Your task to perform on an android device: View the shopping cart on newegg. Image 0: 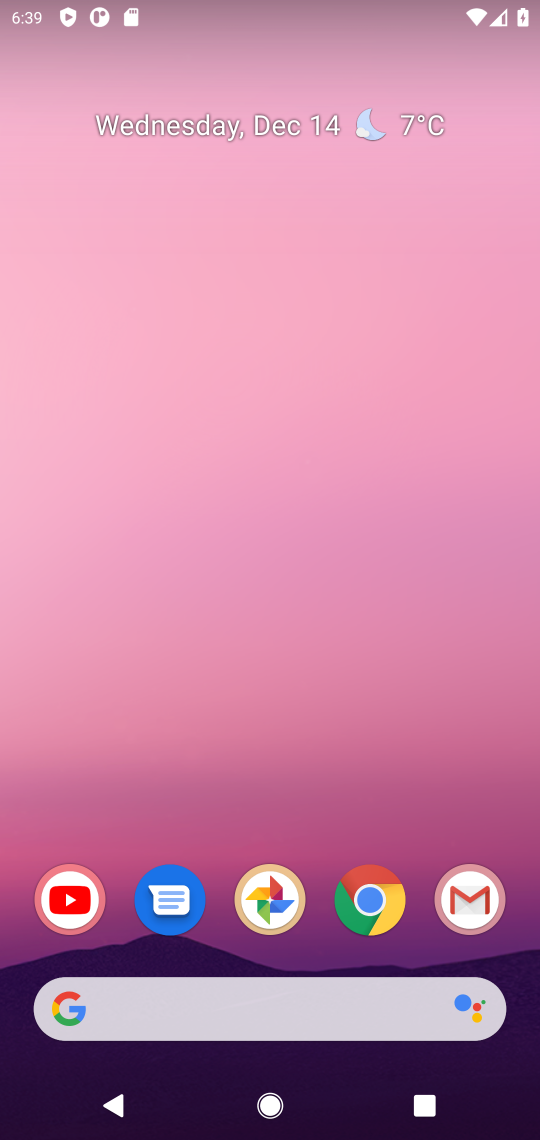
Step 0: drag from (251, 936) to (224, 291)
Your task to perform on an android device: View the shopping cart on newegg. Image 1: 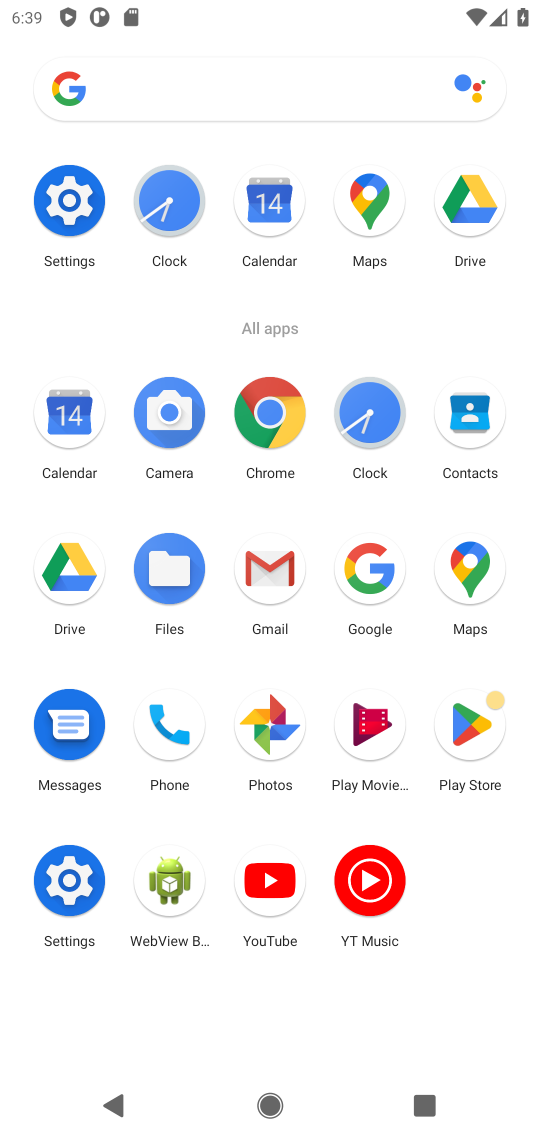
Step 1: click (380, 579)
Your task to perform on an android device: View the shopping cart on newegg. Image 2: 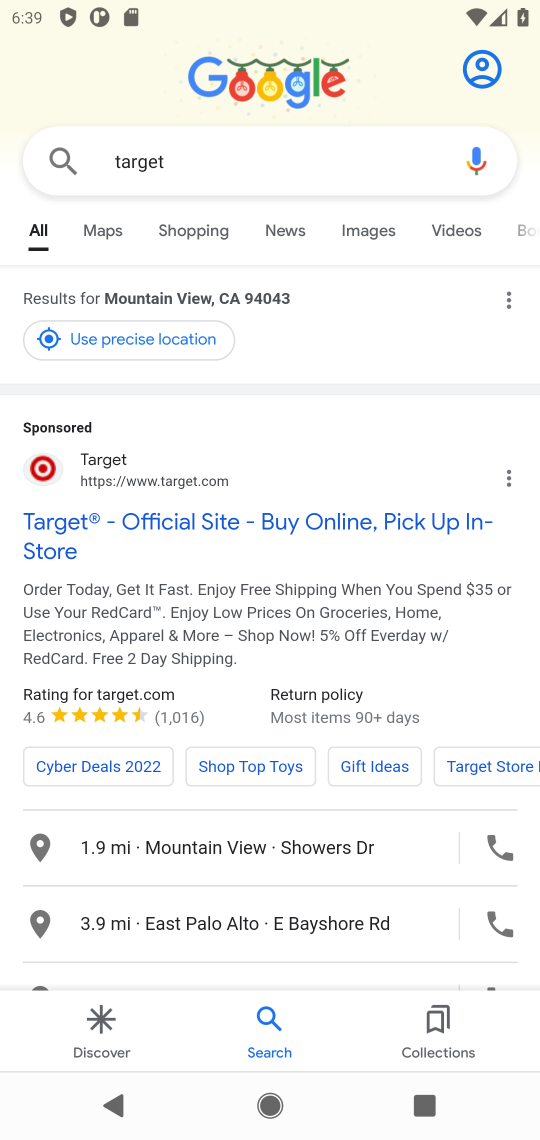
Step 2: click (388, 177)
Your task to perform on an android device: View the shopping cart on newegg. Image 3: 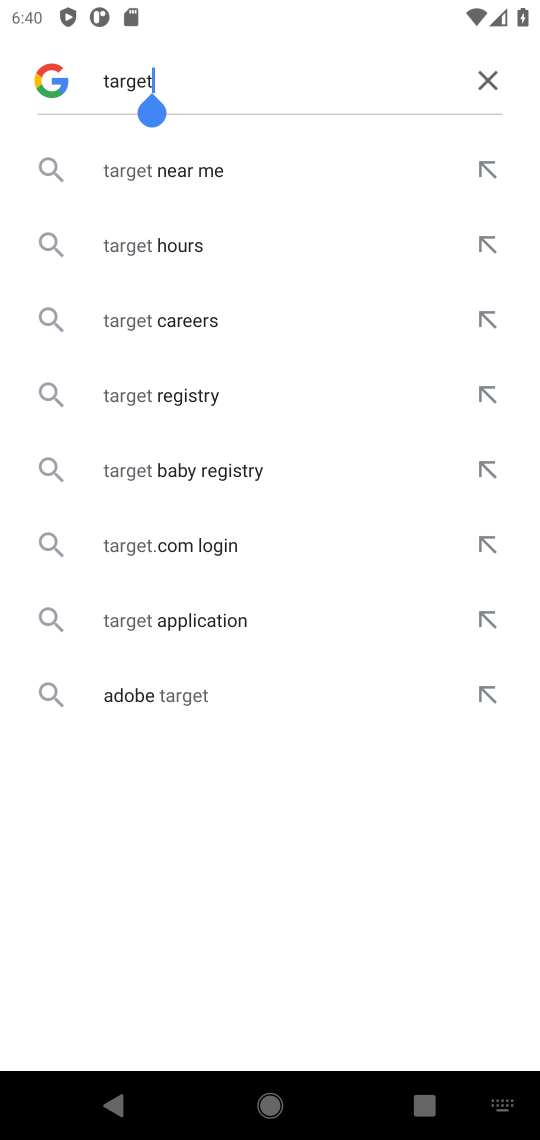
Step 3: click (482, 78)
Your task to perform on an android device: View the shopping cart on newegg. Image 4: 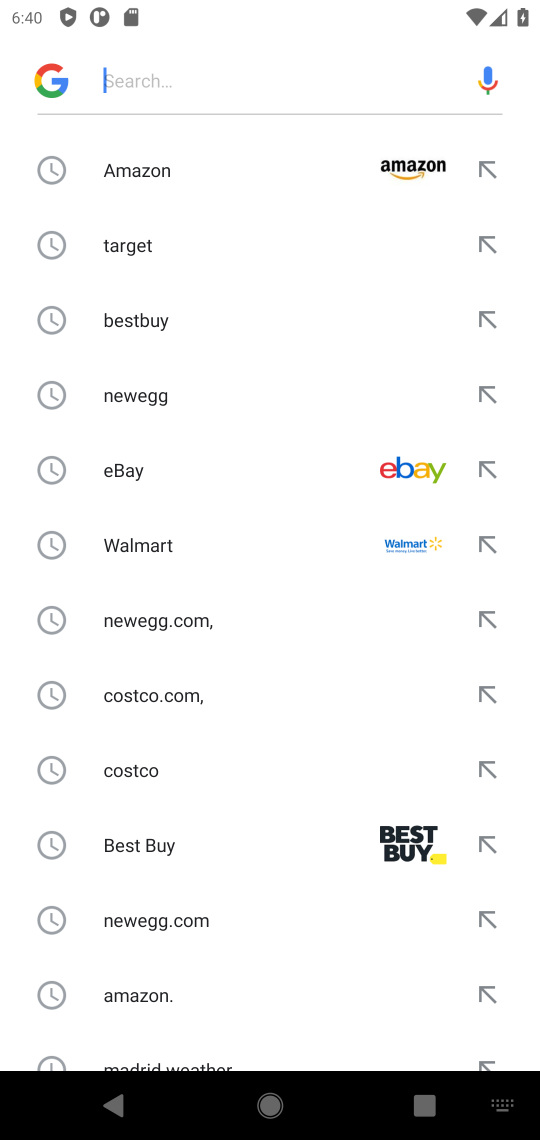
Step 4: click (309, 92)
Your task to perform on an android device: View the shopping cart on newegg. Image 5: 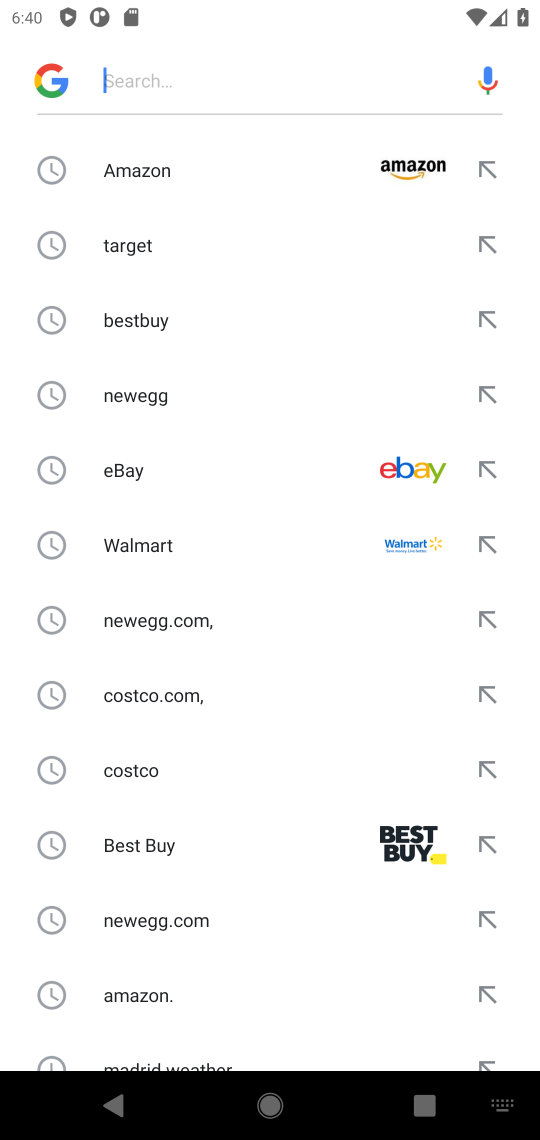
Step 5: type "newegg"
Your task to perform on an android device: View the shopping cart on newegg. Image 6: 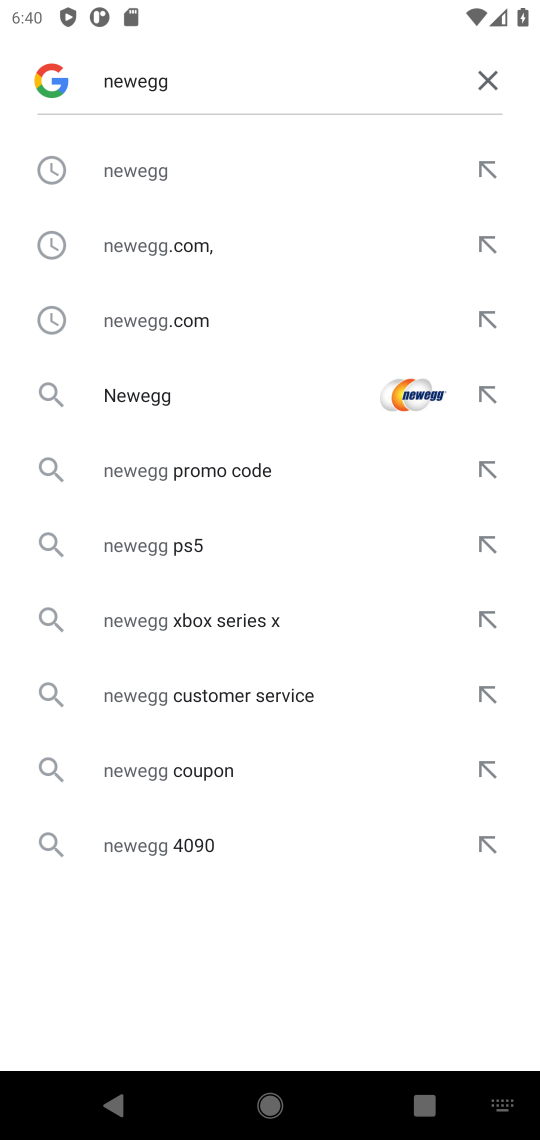
Step 6: click (254, 402)
Your task to perform on an android device: View the shopping cart on newegg. Image 7: 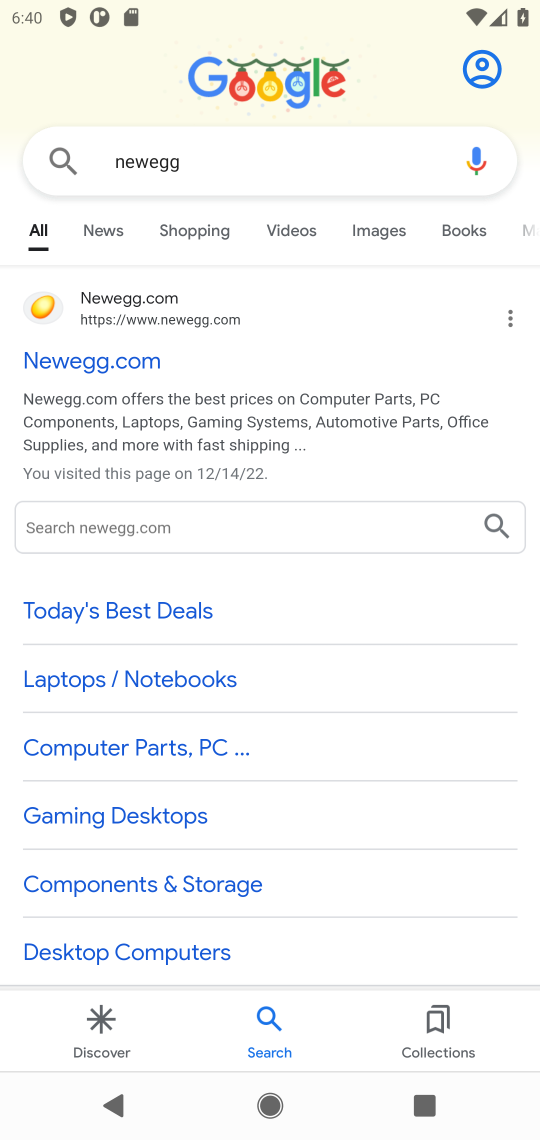
Step 7: click (109, 360)
Your task to perform on an android device: View the shopping cart on newegg. Image 8: 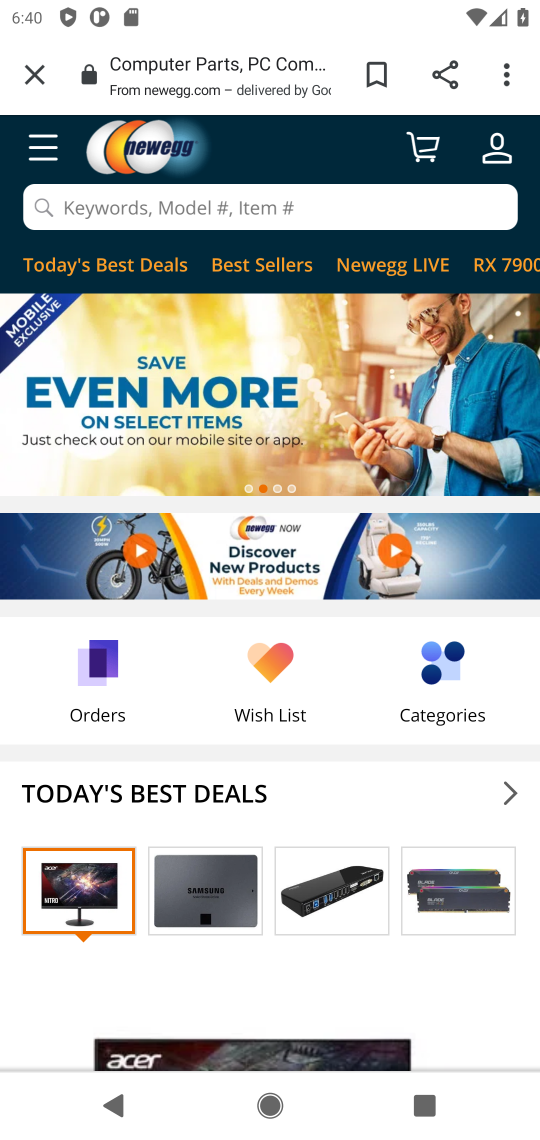
Step 8: click (421, 140)
Your task to perform on an android device: View the shopping cart on newegg. Image 9: 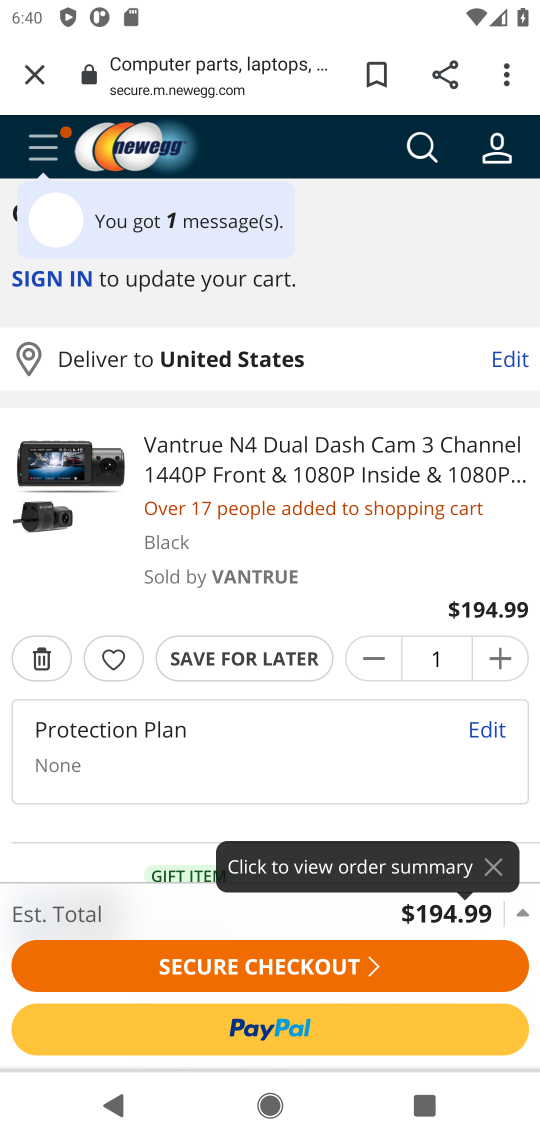
Step 9: task complete